Your task to perform on an android device: Search for acer nitro on costco, select the first entry, and add it to the cart. Image 0: 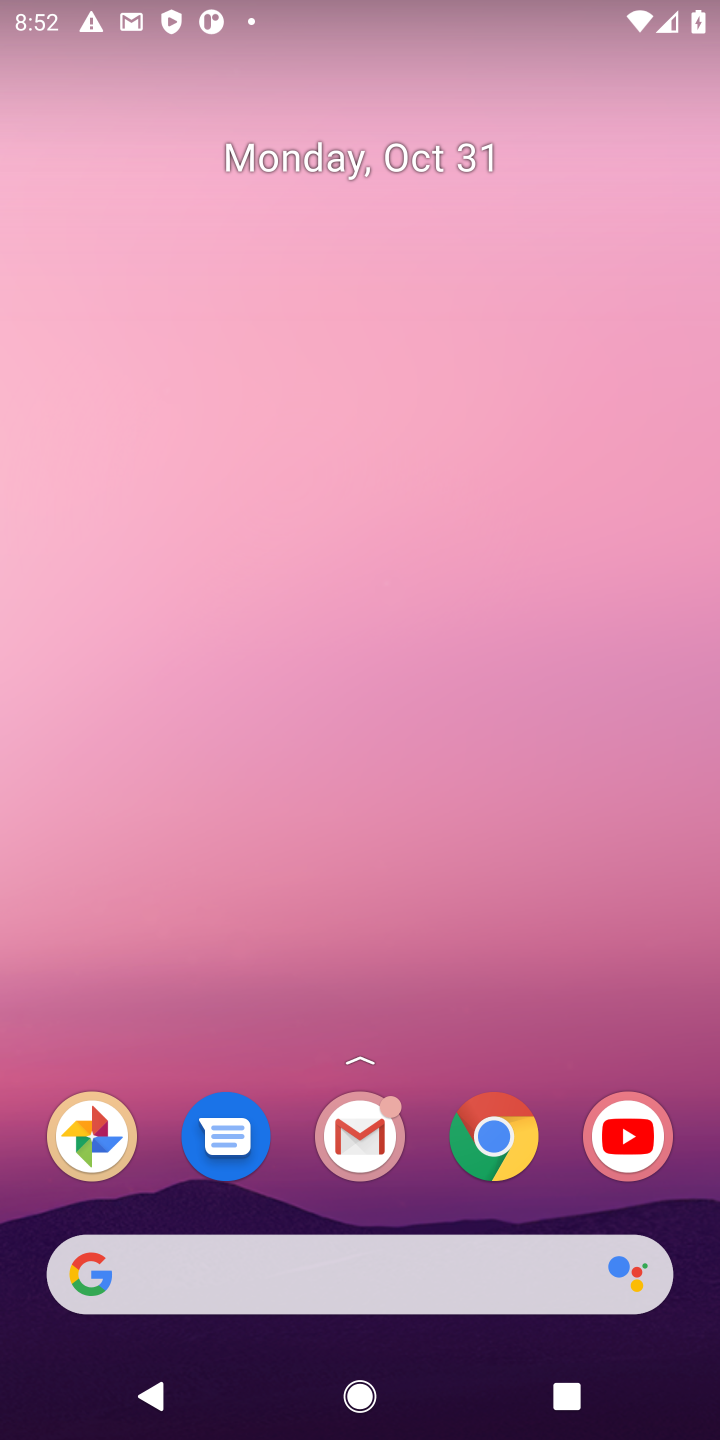
Step 0: click (89, 1278)
Your task to perform on an android device: Search for acer nitro on costco, select the first entry, and add it to the cart. Image 1: 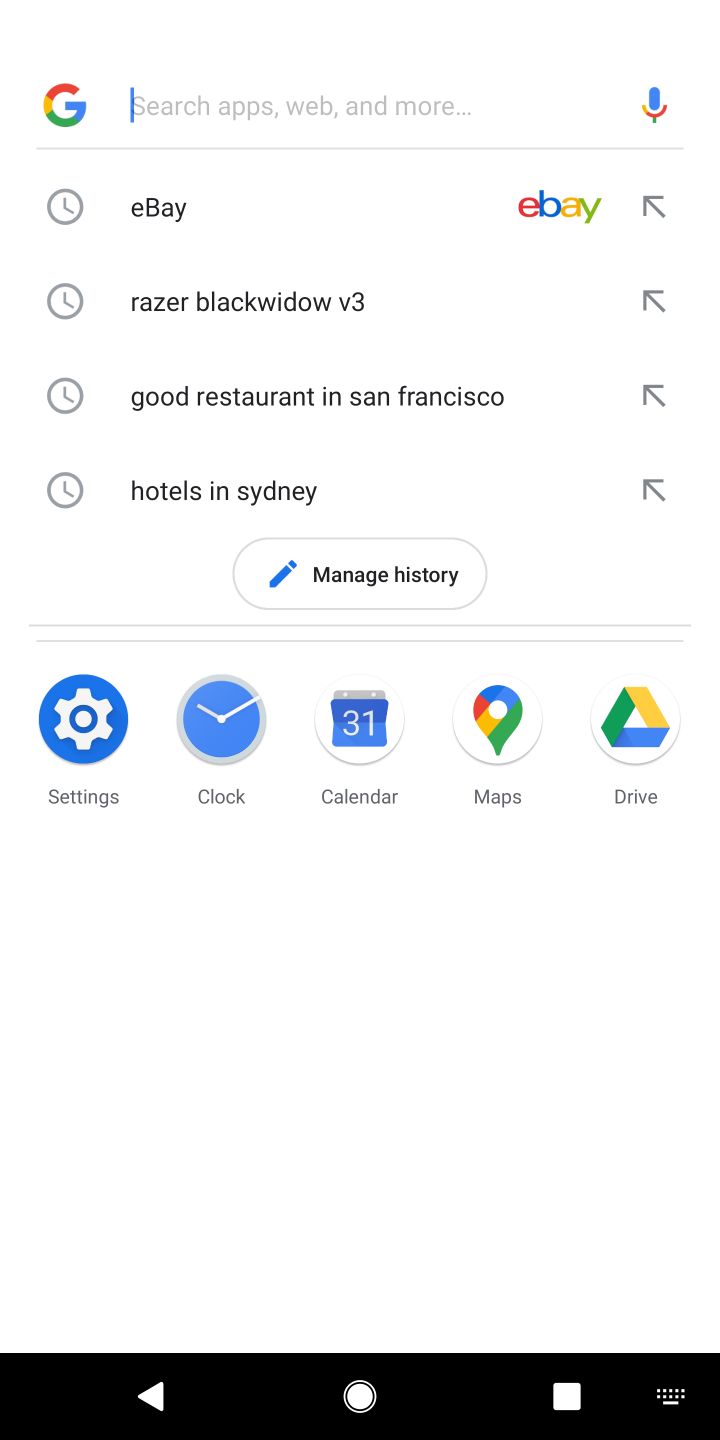
Step 1: type "costco"
Your task to perform on an android device: Search for acer nitro on costco, select the first entry, and add it to the cart. Image 2: 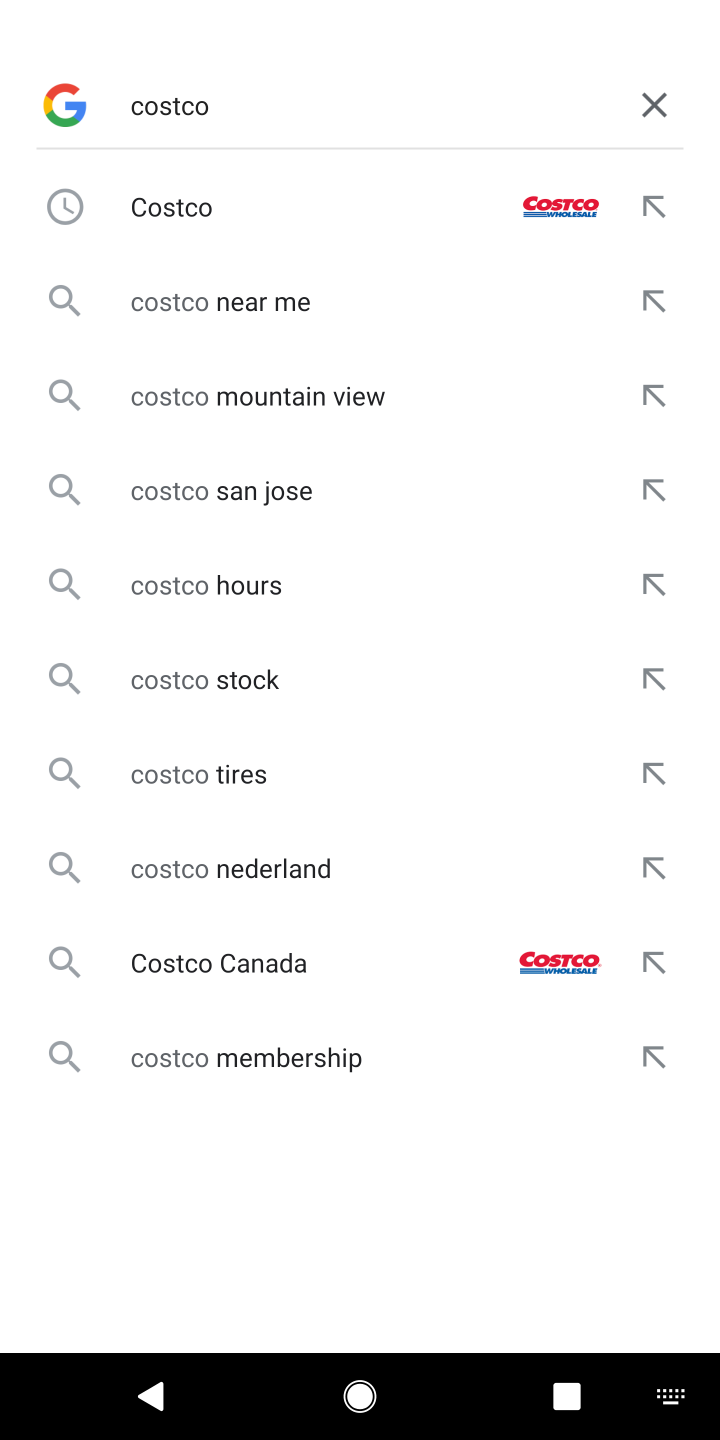
Step 2: click (190, 209)
Your task to perform on an android device: Search for acer nitro on costco, select the first entry, and add it to the cart. Image 3: 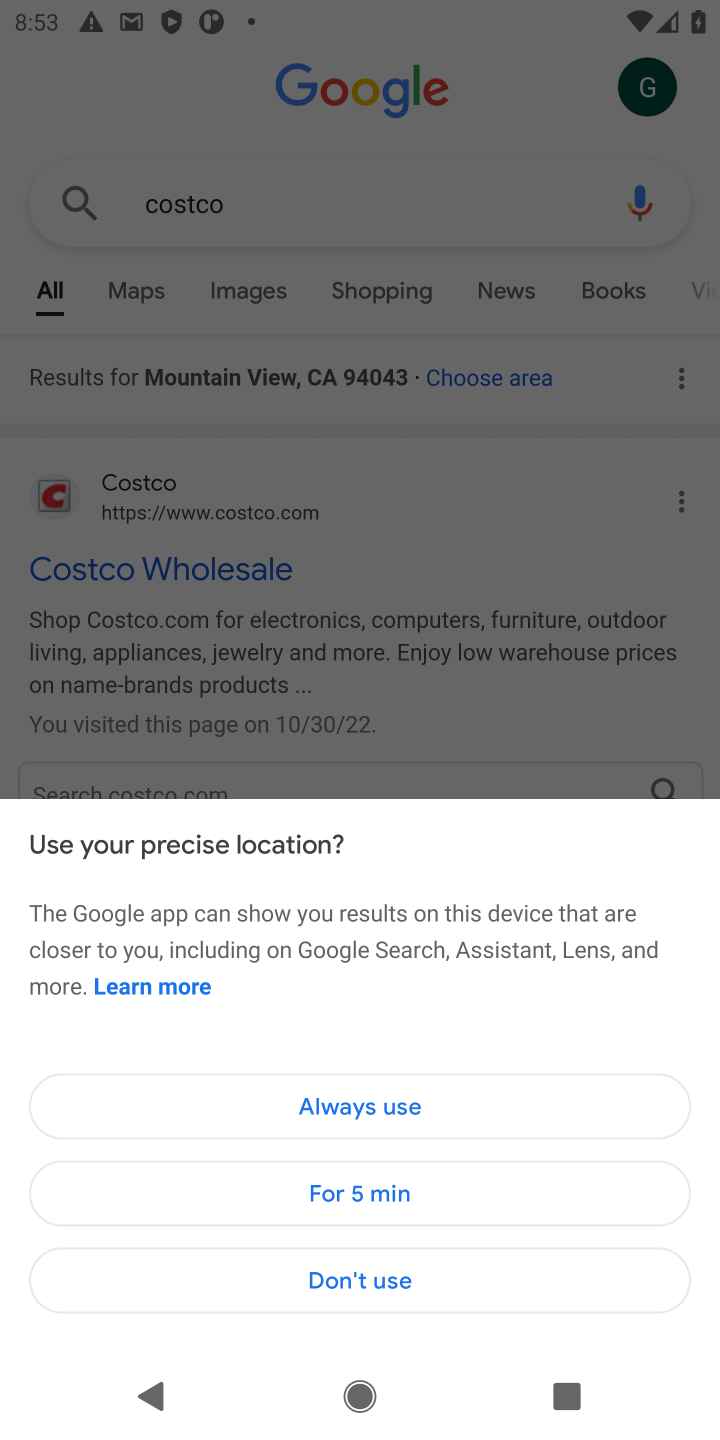
Step 3: click (350, 1293)
Your task to perform on an android device: Search for acer nitro on costco, select the first entry, and add it to the cart. Image 4: 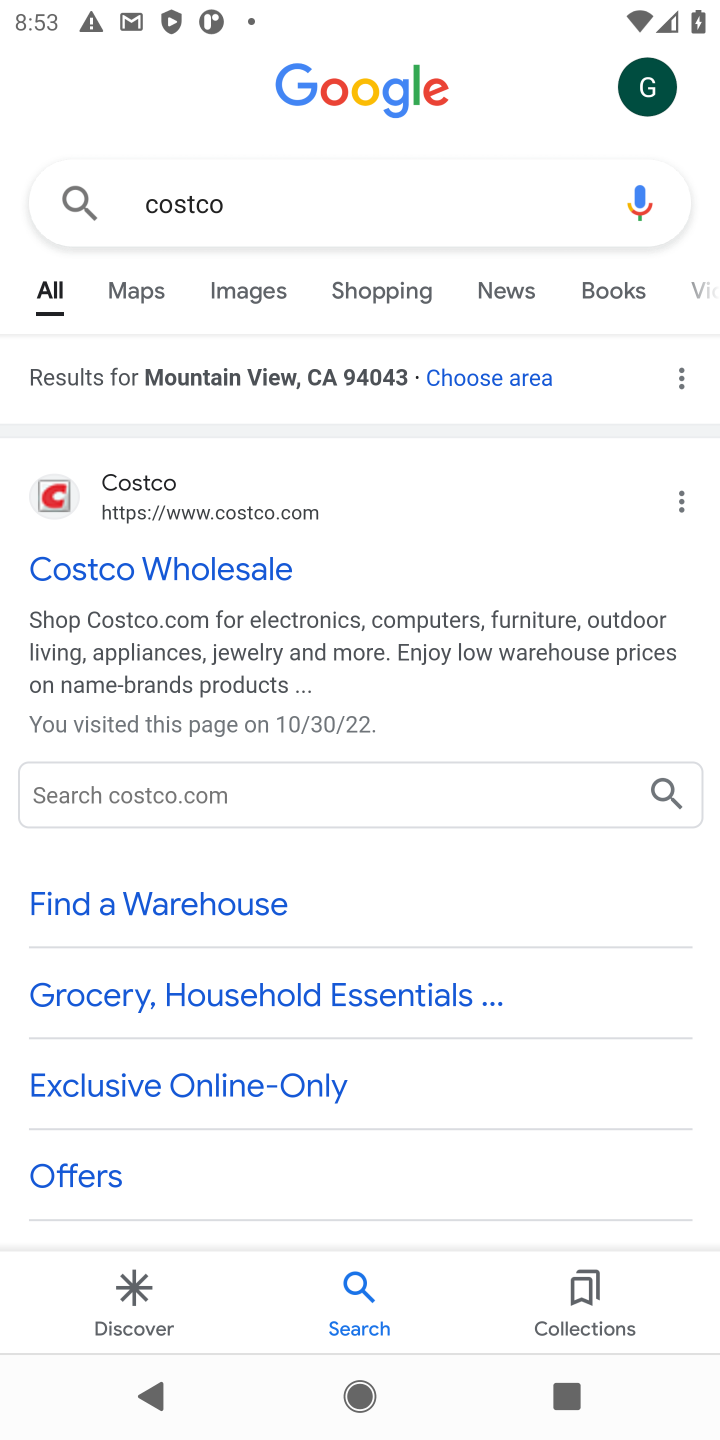
Step 4: click (211, 568)
Your task to perform on an android device: Search for acer nitro on costco, select the first entry, and add it to the cart. Image 5: 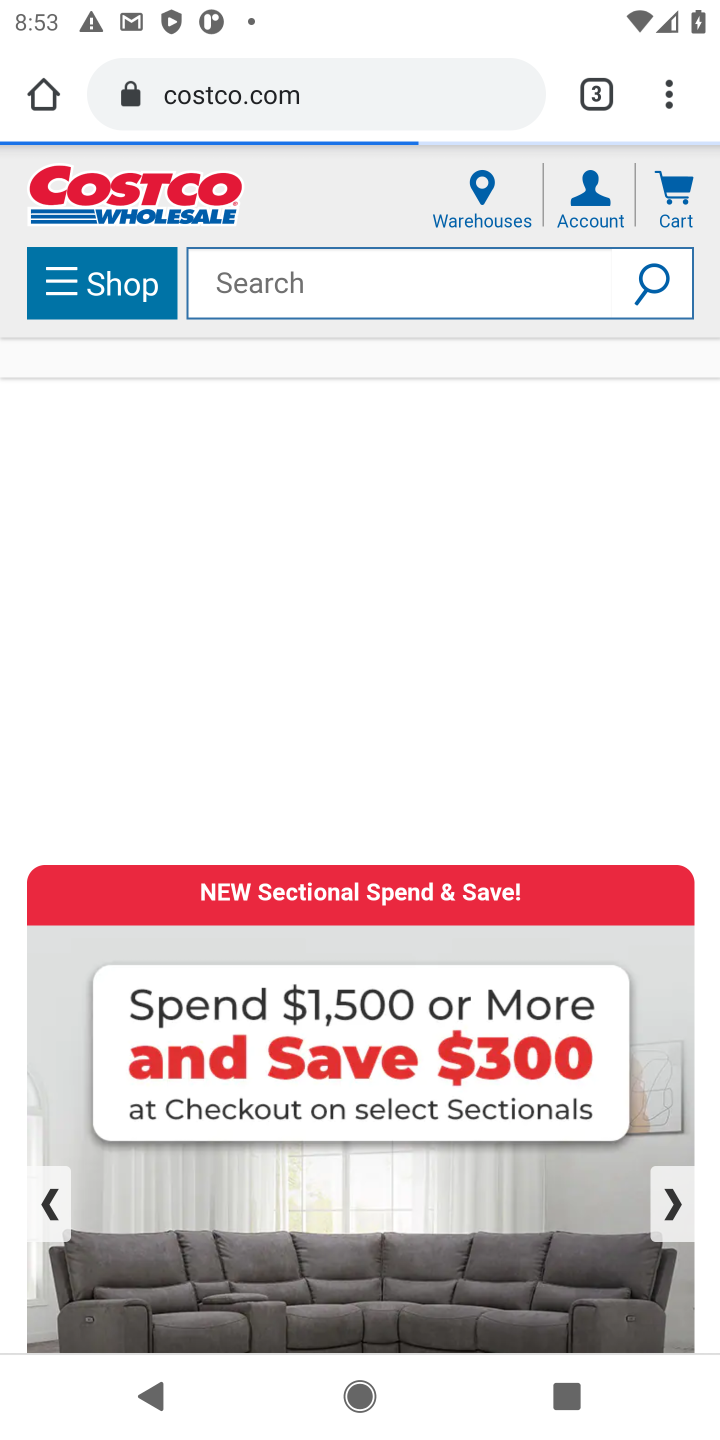
Step 5: click (389, 283)
Your task to perform on an android device: Search for acer nitro on costco, select the first entry, and add it to the cart. Image 6: 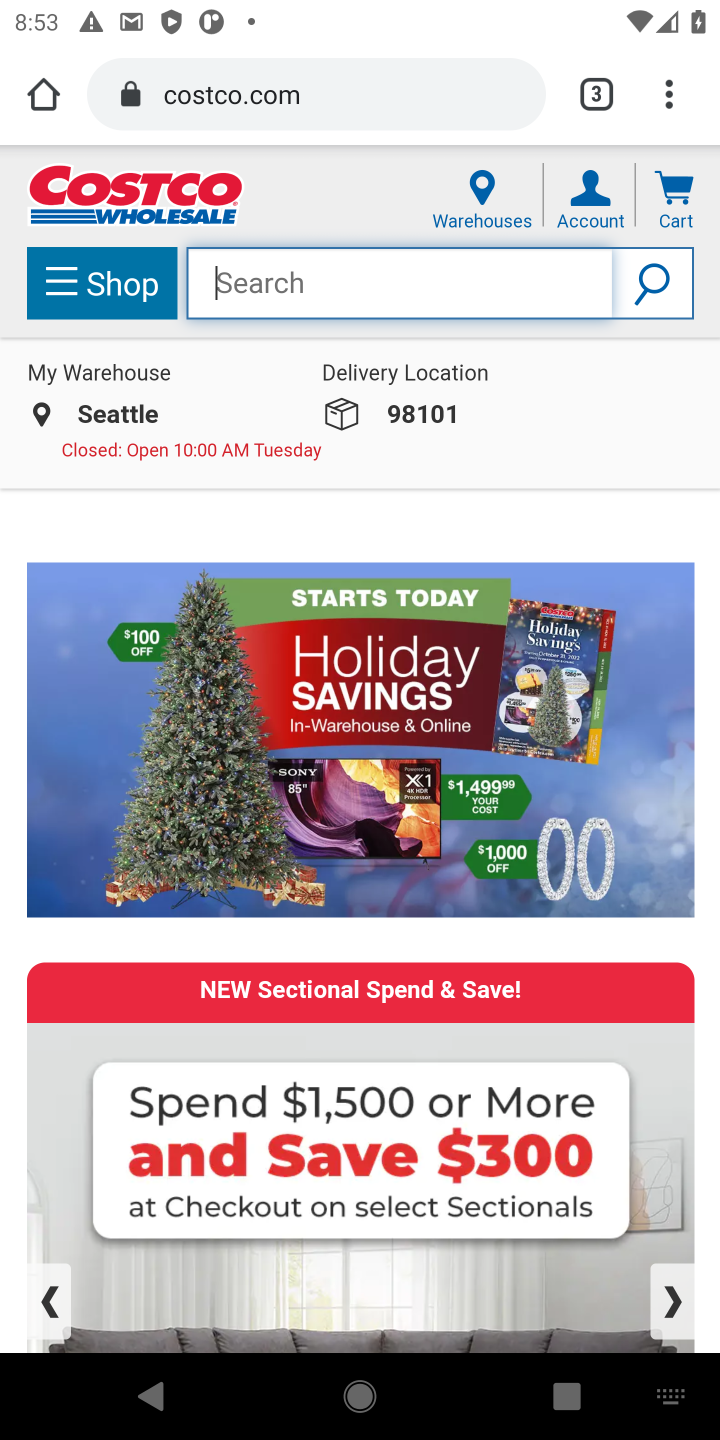
Step 6: type "acer nitro"
Your task to perform on an android device: Search for acer nitro on costco, select the first entry, and add it to the cart. Image 7: 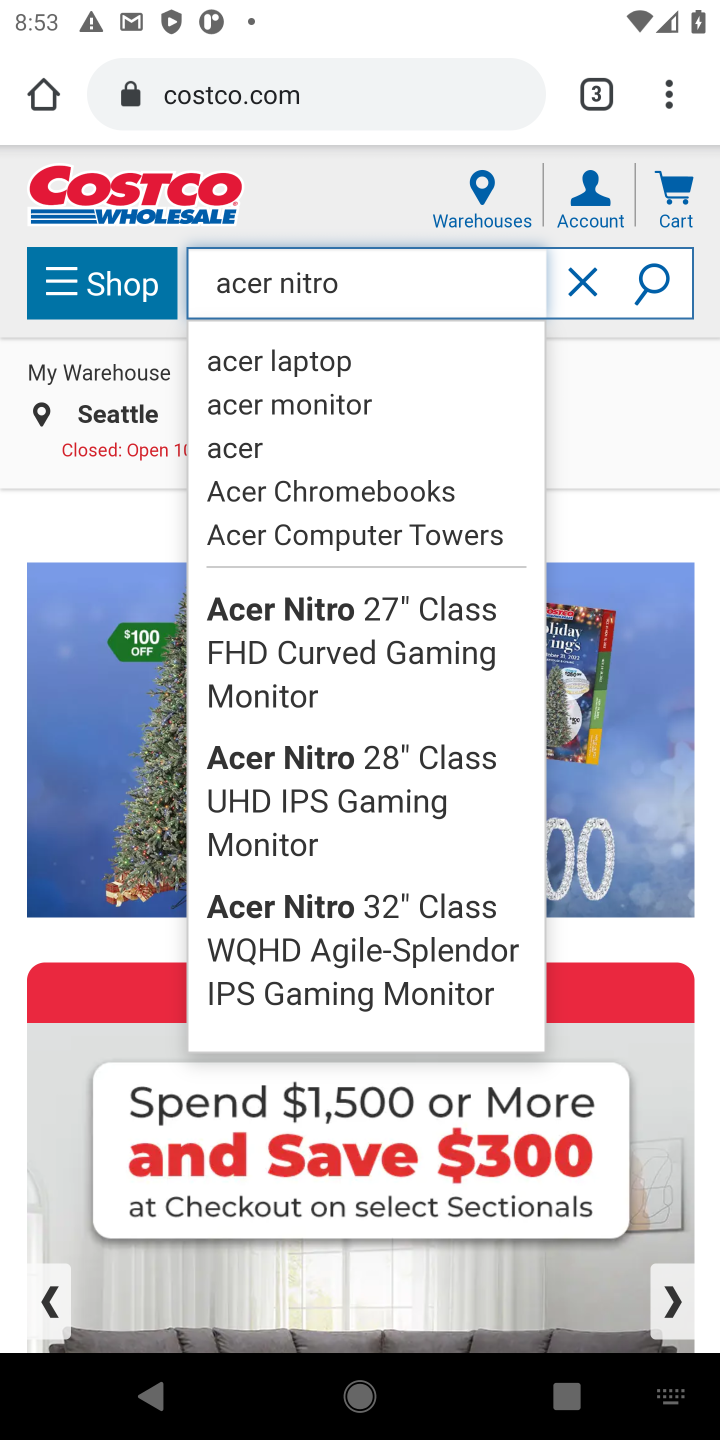
Step 7: click (323, 627)
Your task to perform on an android device: Search for acer nitro on costco, select the first entry, and add it to the cart. Image 8: 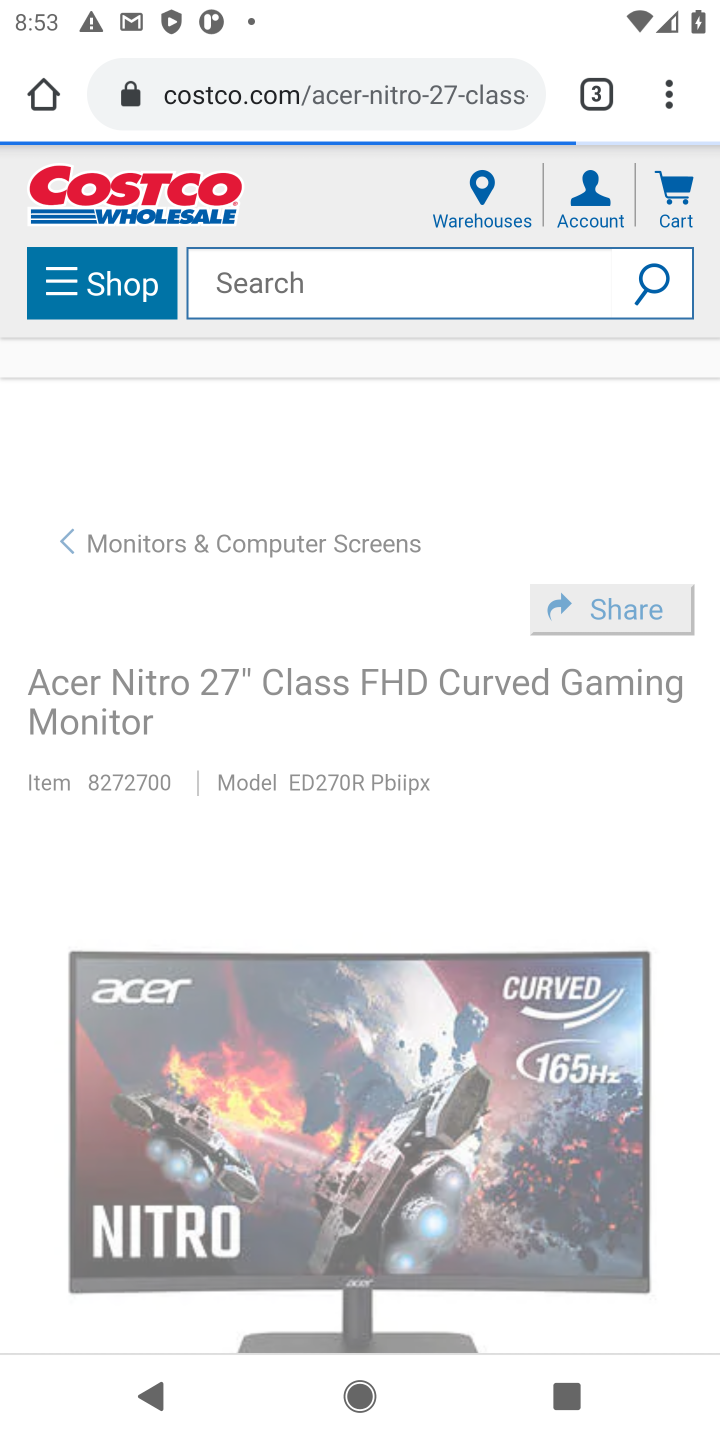
Step 8: drag from (338, 1195) to (331, 444)
Your task to perform on an android device: Search for acer nitro on costco, select the first entry, and add it to the cart. Image 9: 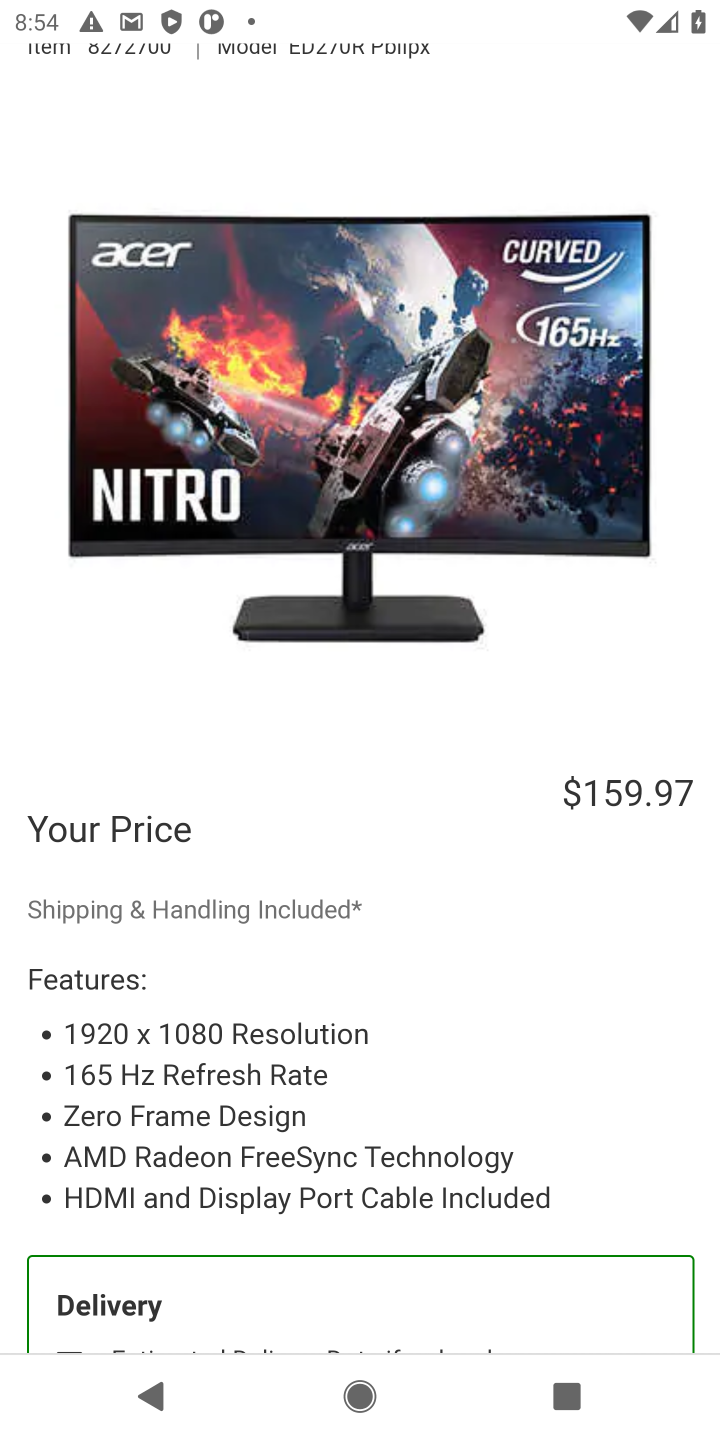
Step 9: drag from (387, 1212) to (375, 496)
Your task to perform on an android device: Search for acer nitro on costco, select the first entry, and add it to the cart. Image 10: 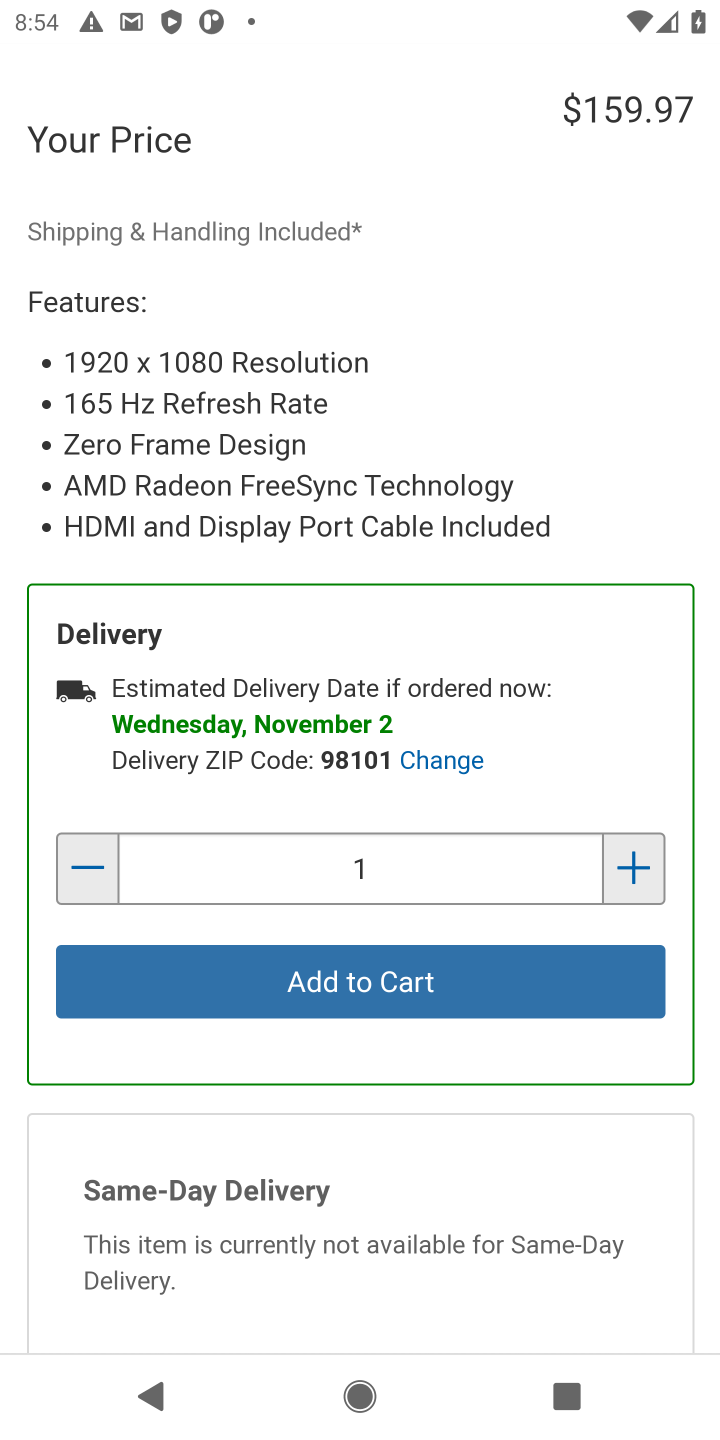
Step 10: click (305, 1001)
Your task to perform on an android device: Search for acer nitro on costco, select the first entry, and add it to the cart. Image 11: 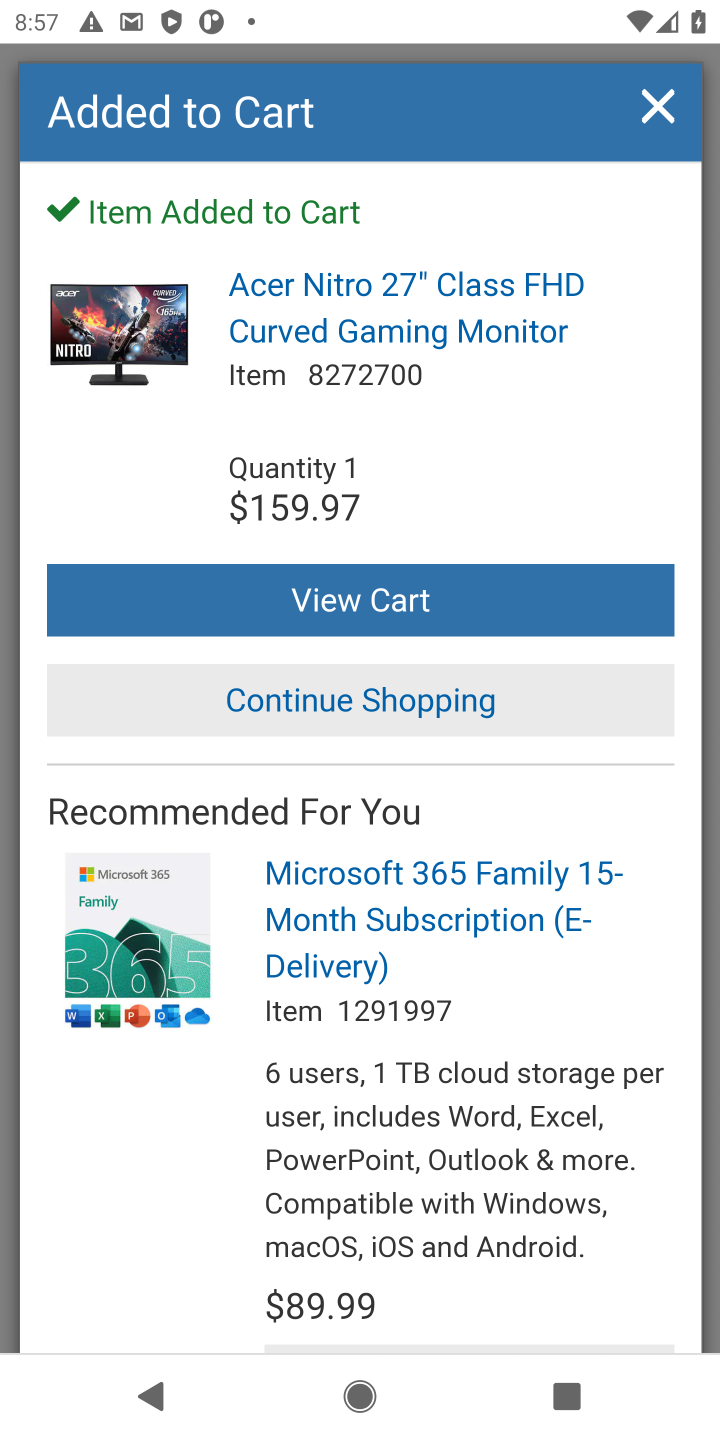
Step 11: task complete